Your task to perform on an android device: Go to Android settings Image 0: 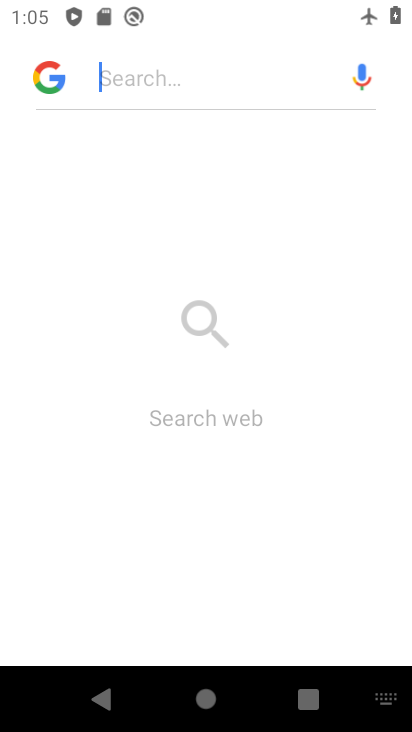
Step 0: press back button
Your task to perform on an android device: Go to Android settings Image 1: 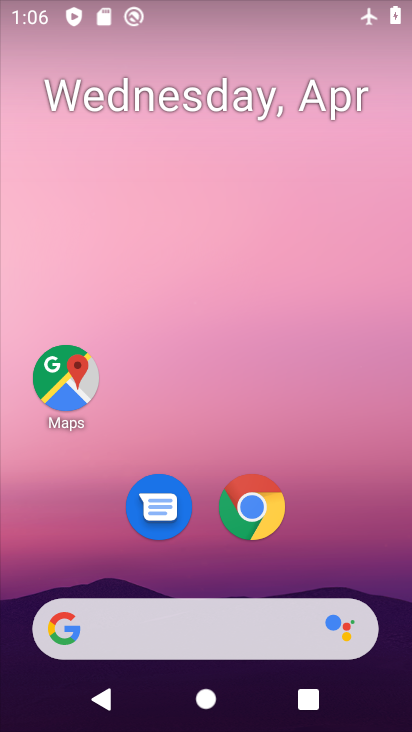
Step 1: drag from (186, 596) to (357, 111)
Your task to perform on an android device: Go to Android settings Image 2: 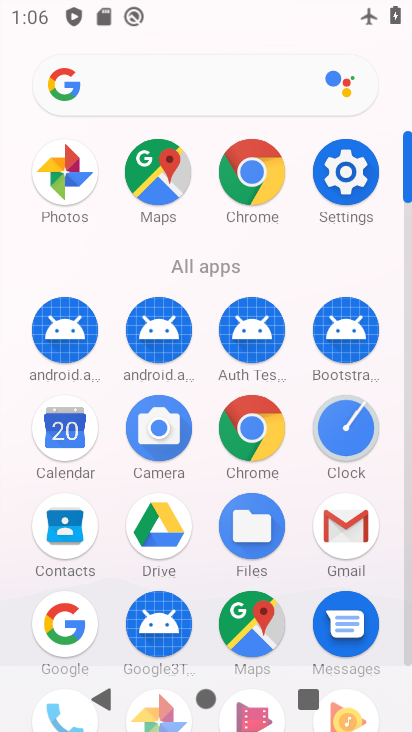
Step 2: click (350, 171)
Your task to perform on an android device: Go to Android settings Image 3: 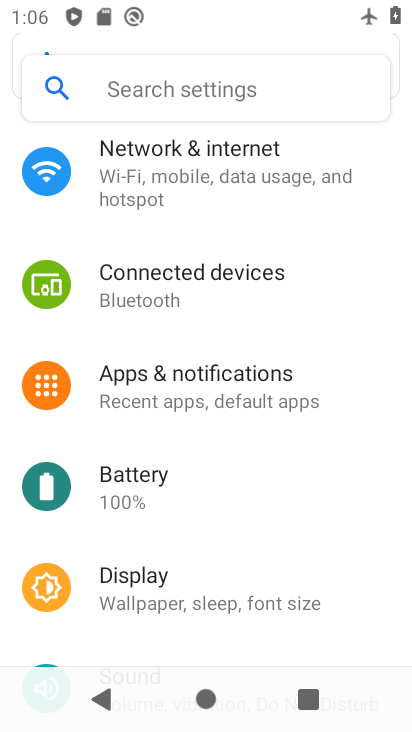
Step 3: task complete